Your task to perform on an android device: open app "Google Find My Device" Image 0: 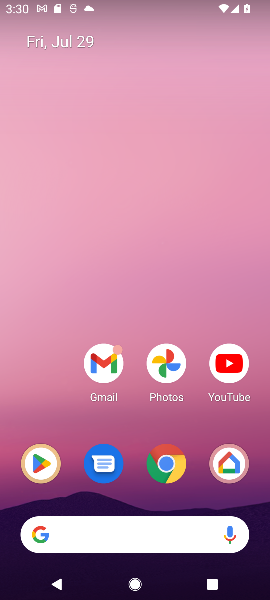
Step 0: drag from (88, 530) to (154, 165)
Your task to perform on an android device: open app "Google Find My Device" Image 1: 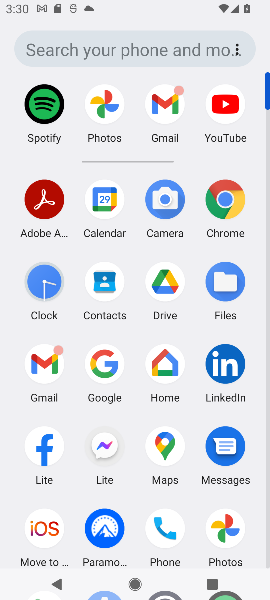
Step 1: drag from (128, 498) to (148, 258)
Your task to perform on an android device: open app "Google Find My Device" Image 2: 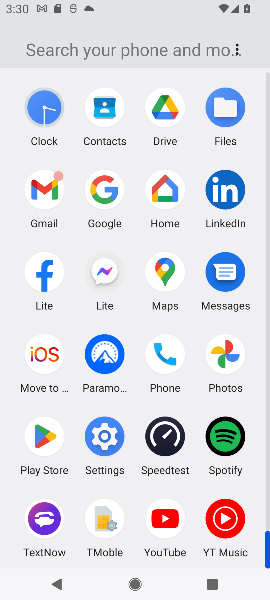
Step 2: click (45, 437)
Your task to perform on an android device: open app "Google Find My Device" Image 3: 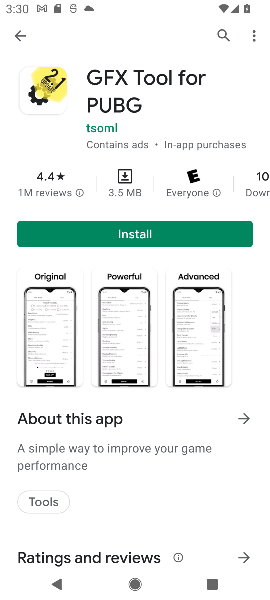
Step 3: click (224, 37)
Your task to perform on an android device: open app "Google Find My Device" Image 4: 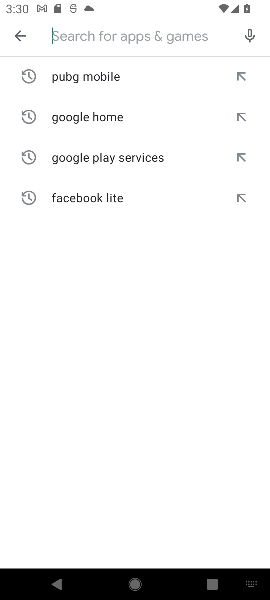
Step 4: type "Google Find My Device"
Your task to perform on an android device: open app "Google Find My Device" Image 5: 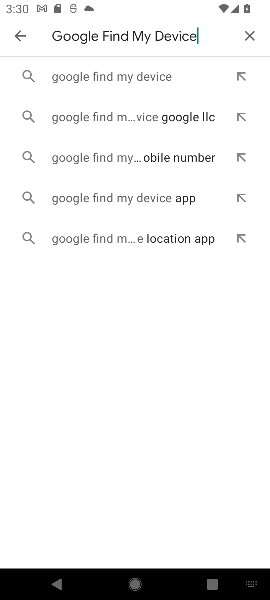
Step 5: click (140, 80)
Your task to perform on an android device: open app "Google Find My Device" Image 6: 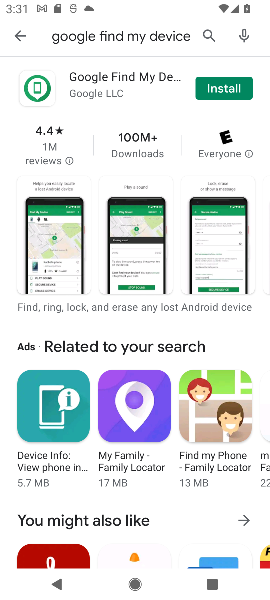
Step 6: task complete